Your task to perform on an android device: Open the map Image 0: 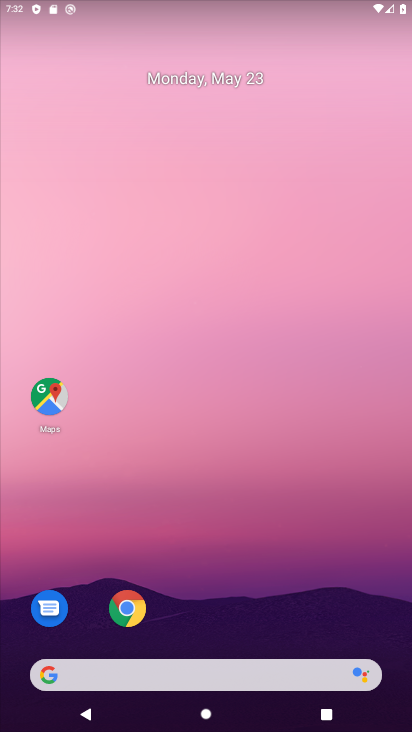
Step 0: drag from (242, 521) to (325, 30)
Your task to perform on an android device: Open the map Image 1: 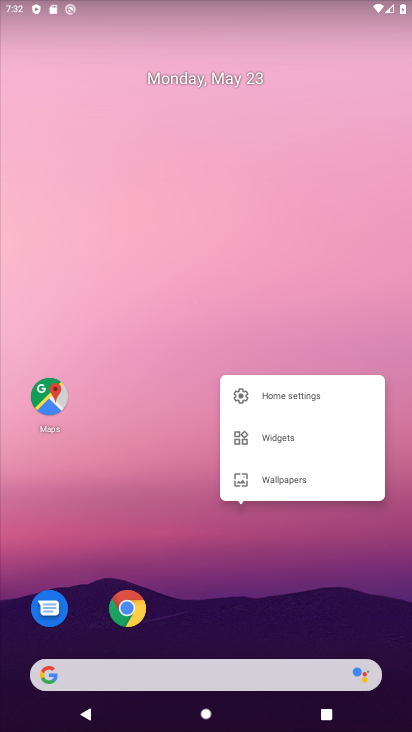
Step 1: drag from (161, 584) to (214, 13)
Your task to perform on an android device: Open the map Image 2: 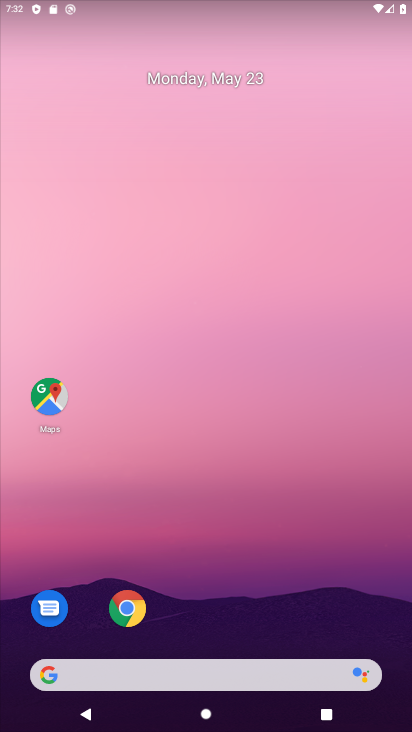
Step 2: drag from (255, 658) to (346, 3)
Your task to perform on an android device: Open the map Image 3: 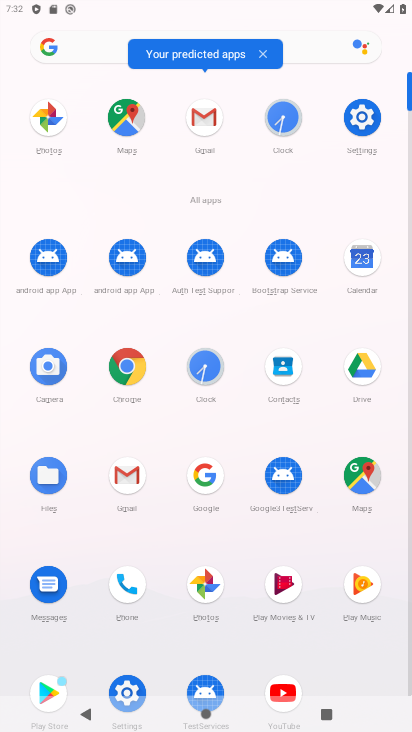
Step 3: click (368, 465)
Your task to perform on an android device: Open the map Image 4: 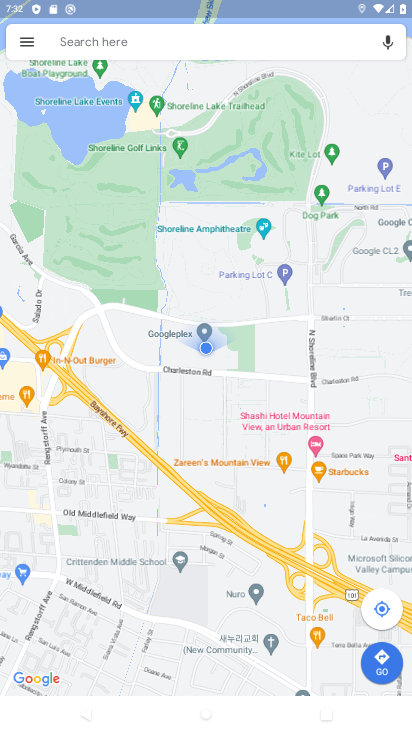
Step 4: task complete